Your task to perform on an android device: Go to location settings Image 0: 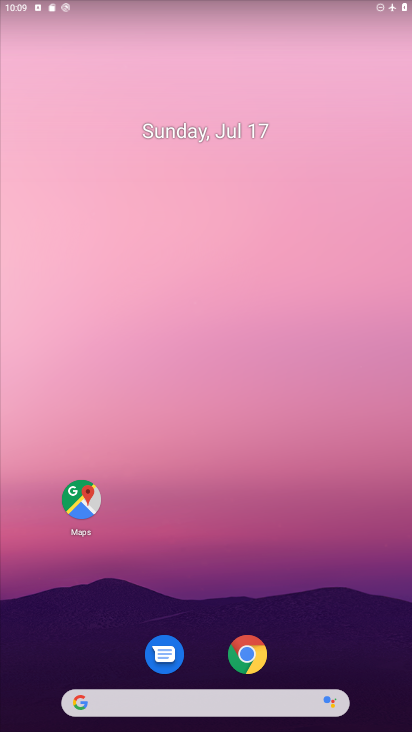
Step 0: drag from (203, 528) to (204, 157)
Your task to perform on an android device: Go to location settings Image 1: 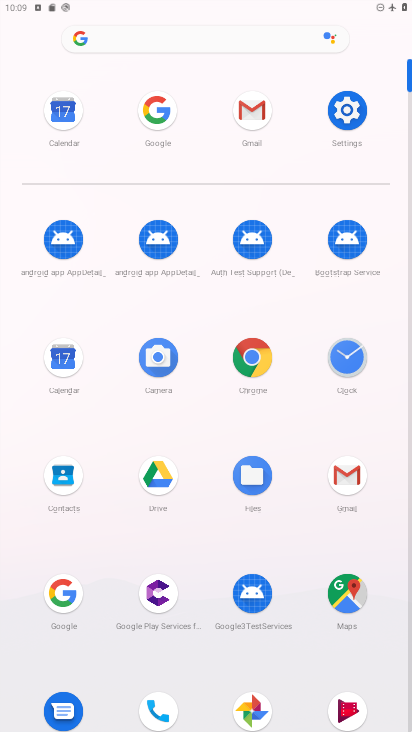
Step 1: click (347, 105)
Your task to perform on an android device: Go to location settings Image 2: 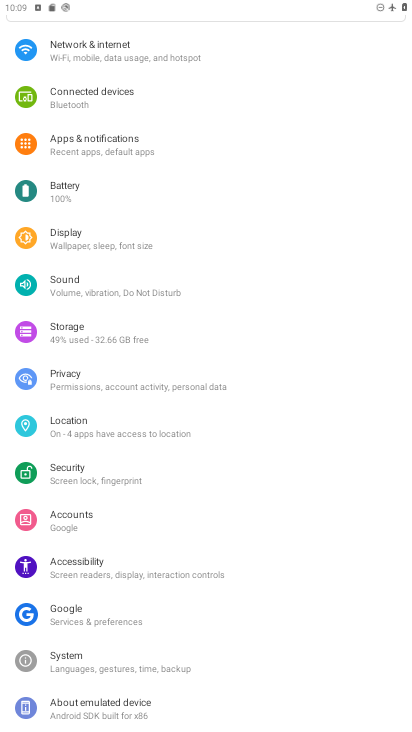
Step 2: click (127, 429)
Your task to perform on an android device: Go to location settings Image 3: 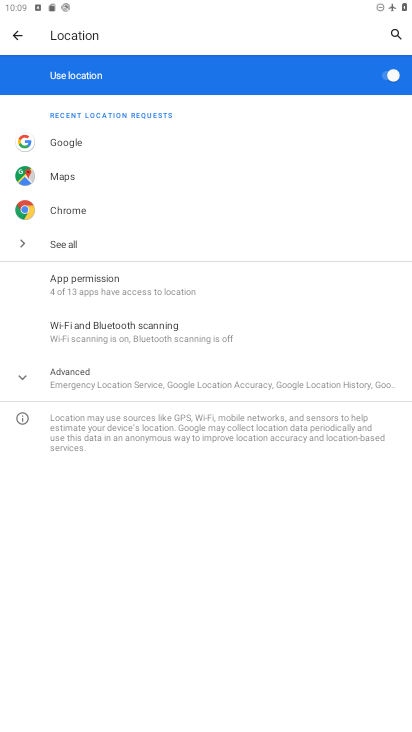
Step 3: task complete